Your task to perform on an android device: What's the weather? Image 0: 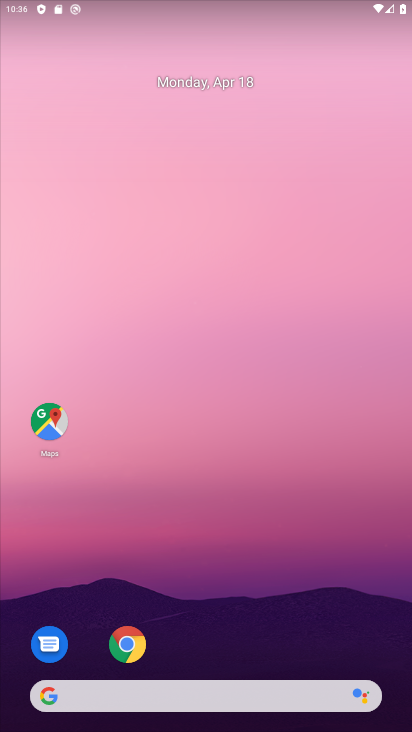
Step 0: drag from (193, 562) to (229, 269)
Your task to perform on an android device: What's the weather? Image 1: 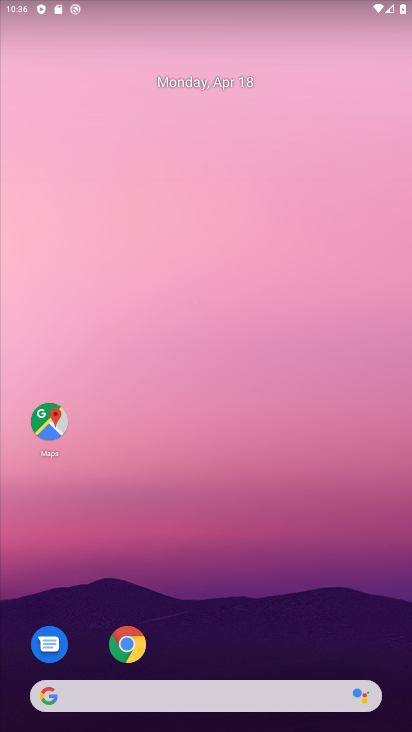
Step 1: click (127, 643)
Your task to perform on an android device: What's the weather? Image 2: 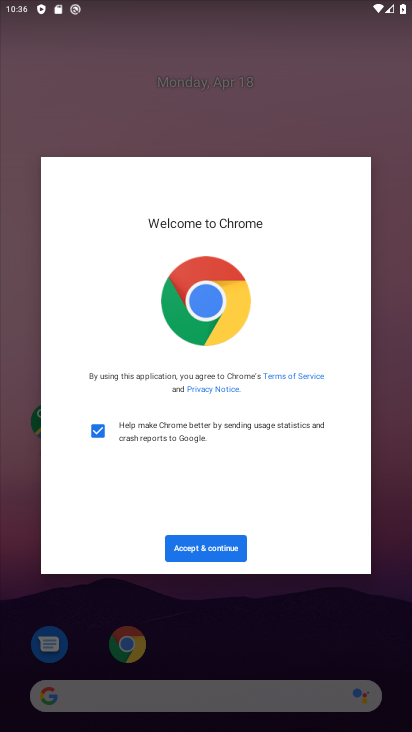
Step 2: click (206, 554)
Your task to perform on an android device: What's the weather? Image 3: 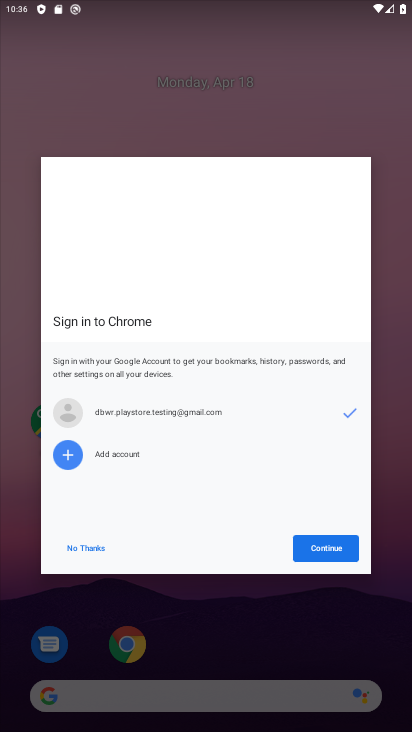
Step 3: click (333, 556)
Your task to perform on an android device: What's the weather? Image 4: 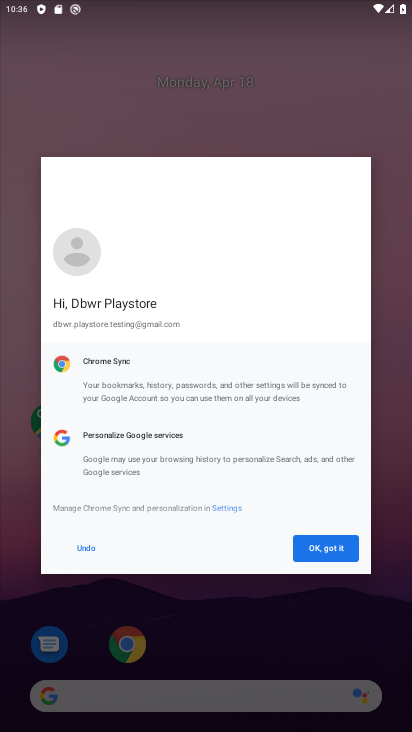
Step 4: click (323, 553)
Your task to perform on an android device: What's the weather? Image 5: 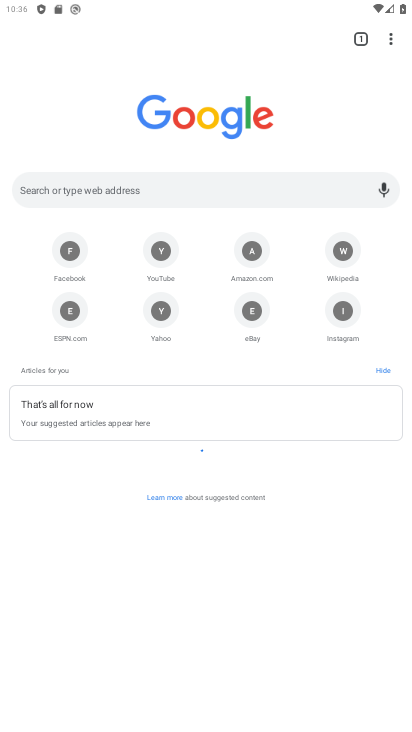
Step 5: click (112, 187)
Your task to perform on an android device: What's the weather? Image 6: 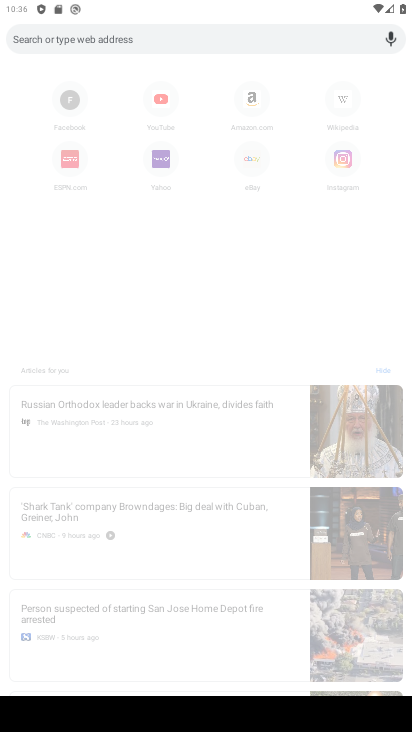
Step 6: type "what's the weather?"
Your task to perform on an android device: What's the weather? Image 7: 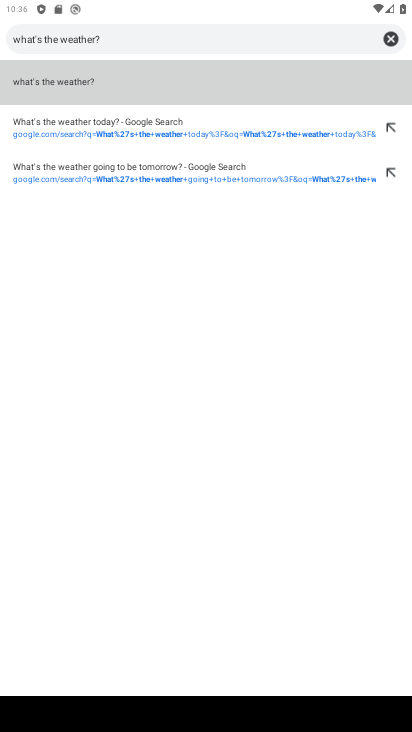
Step 7: click (73, 88)
Your task to perform on an android device: What's the weather? Image 8: 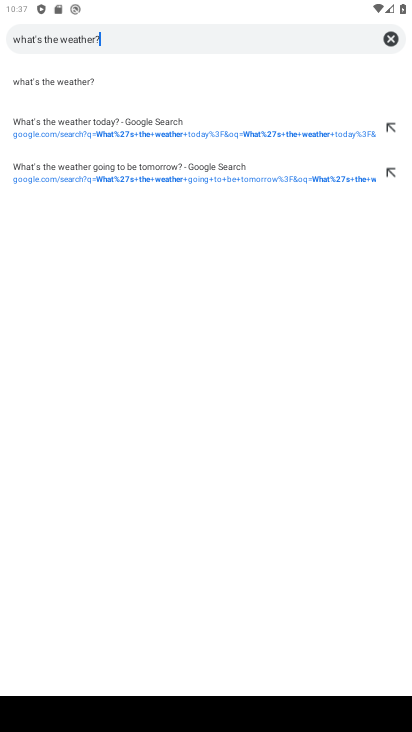
Step 8: click (83, 86)
Your task to perform on an android device: What's the weather? Image 9: 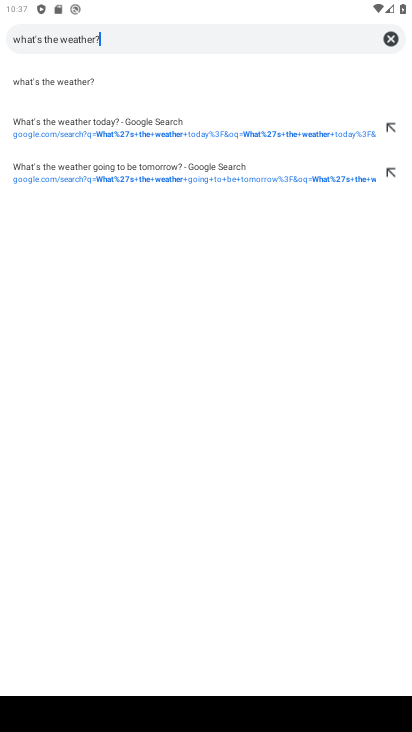
Step 9: click (84, 134)
Your task to perform on an android device: What's the weather? Image 10: 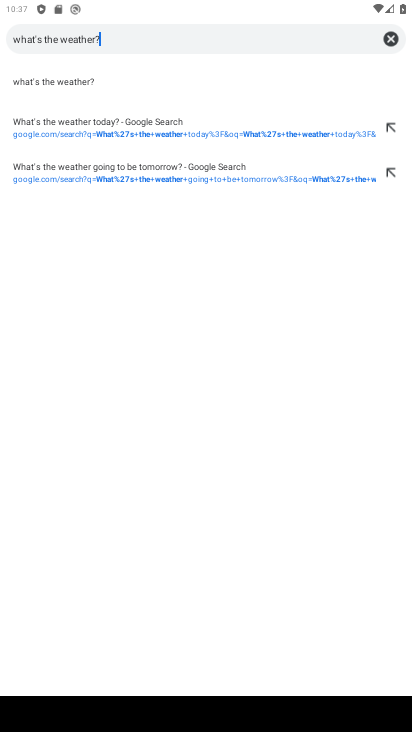
Step 10: click (84, 134)
Your task to perform on an android device: What's the weather? Image 11: 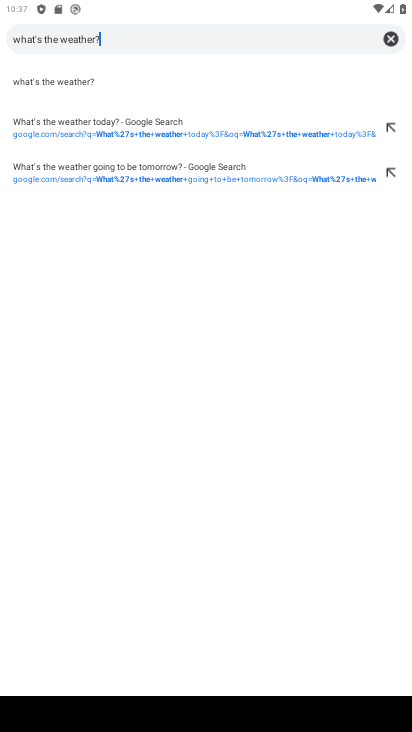
Step 11: click (71, 92)
Your task to perform on an android device: What's the weather? Image 12: 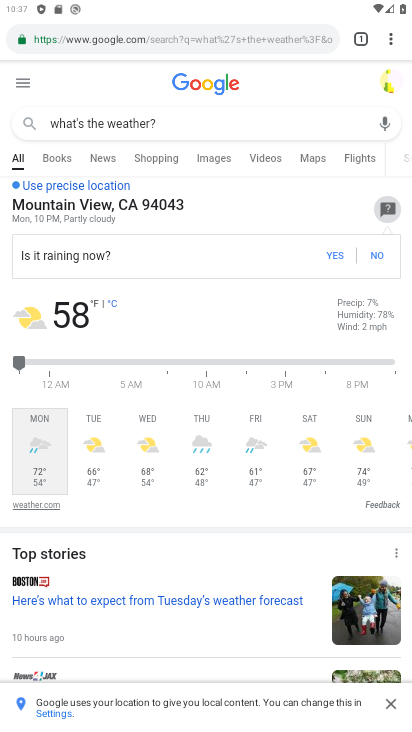
Step 12: task complete